Your task to perform on an android device: Go to location settings Image 0: 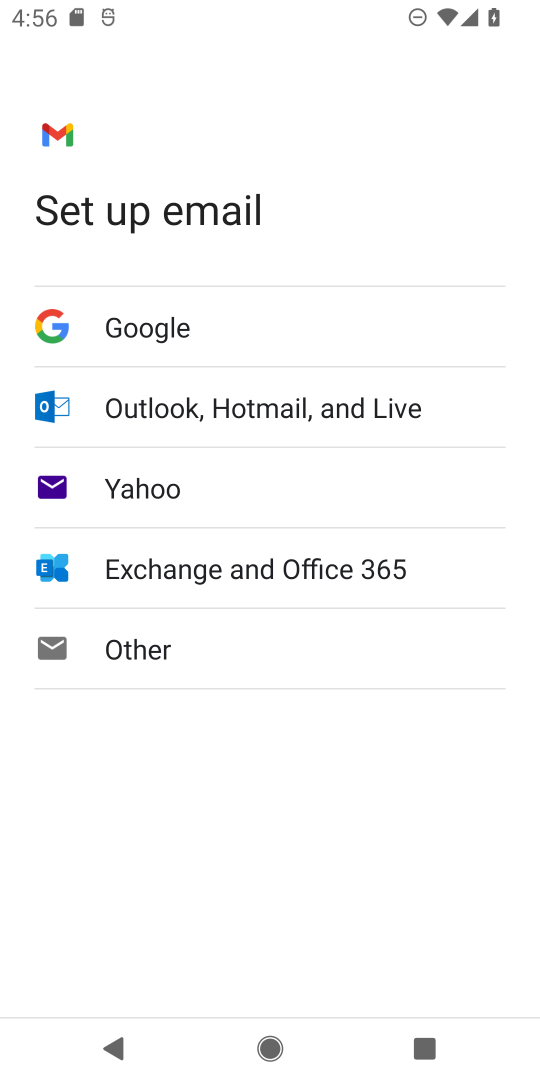
Step 0: press home button
Your task to perform on an android device: Go to location settings Image 1: 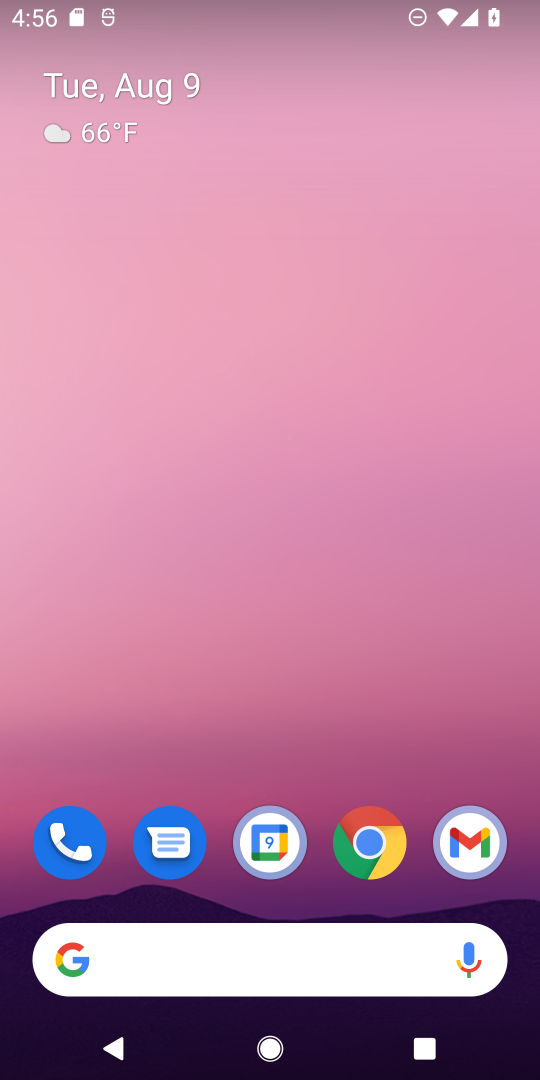
Step 1: drag from (336, 968) to (167, 210)
Your task to perform on an android device: Go to location settings Image 2: 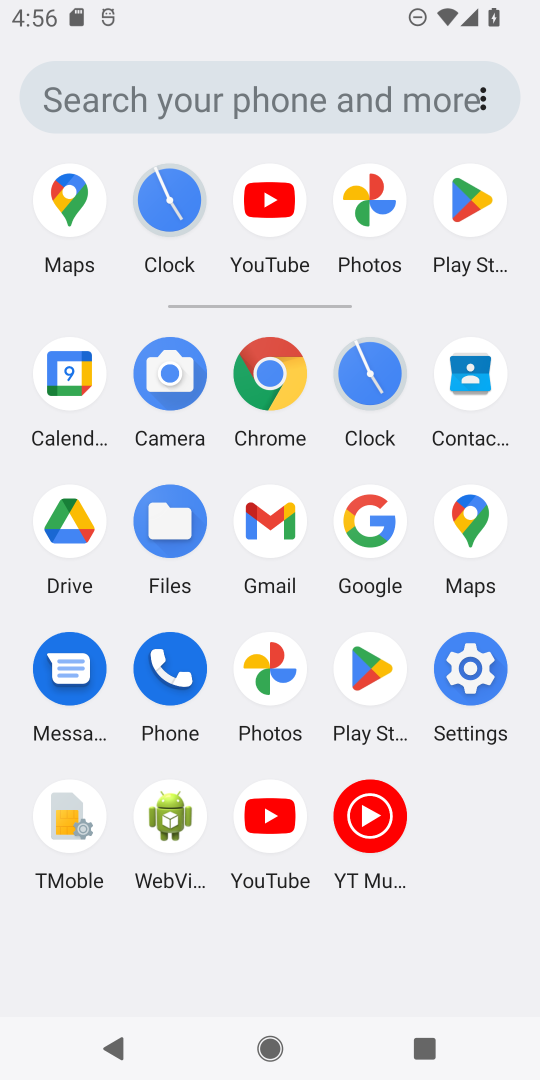
Step 2: click (471, 693)
Your task to perform on an android device: Go to location settings Image 3: 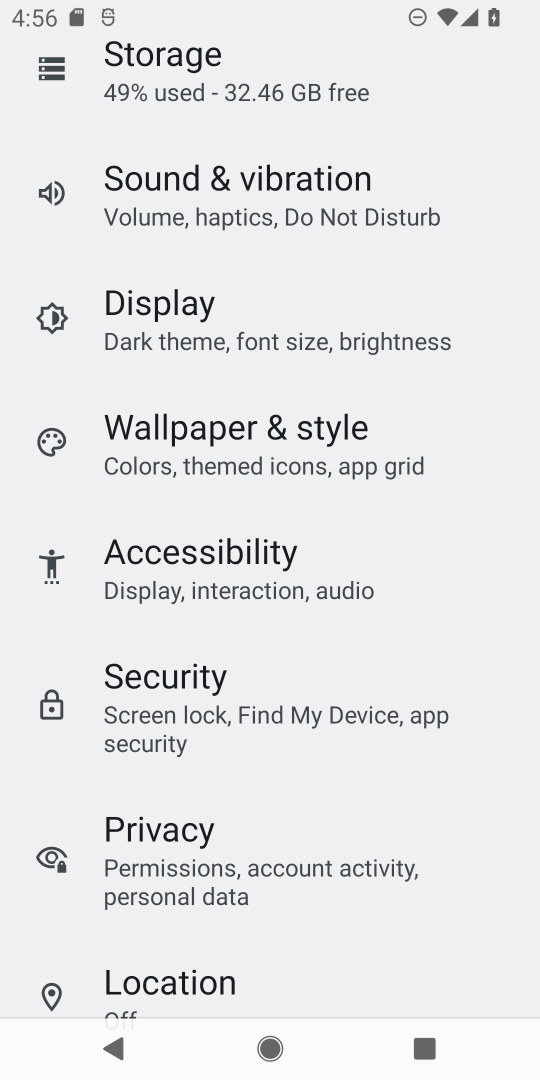
Step 3: click (215, 980)
Your task to perform on an android device: Go to location settings Image 4: 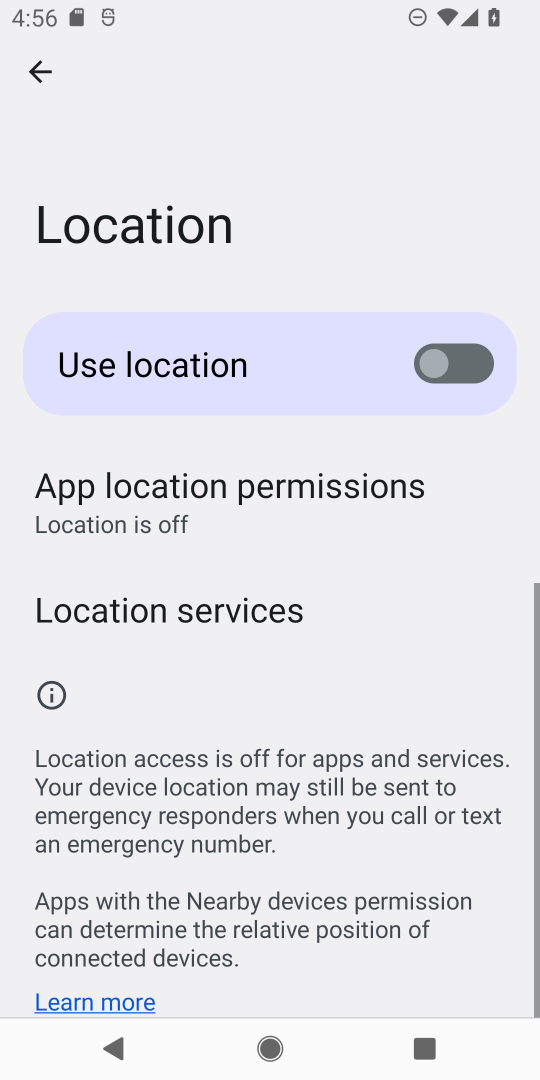
Step 4: task complete